Your task to perform on an android device: Open my contact list Image 0: 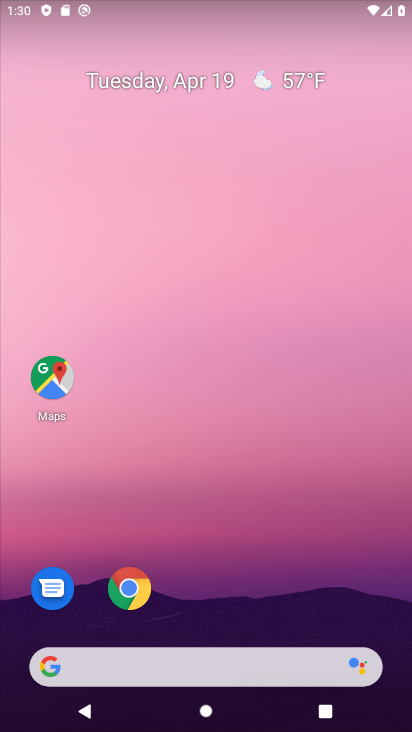
Step 0: drag from (294, 482) to (307, 74)
Your task to perform on an android device: Open my contact list Image 1: 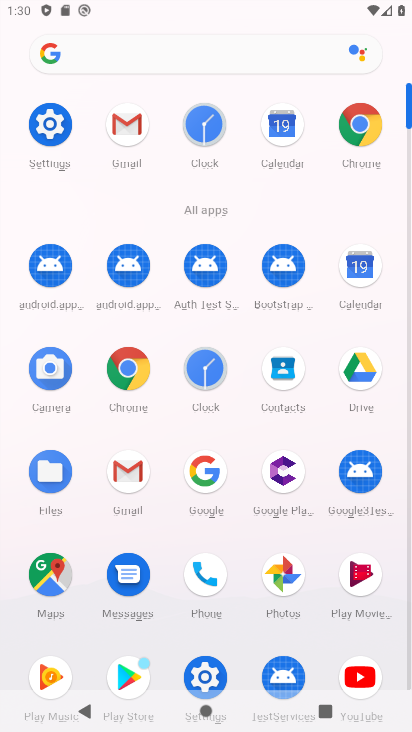
Step 1: click (286, 359)
Your task to perform on an android device: Open my contact list Image 2: 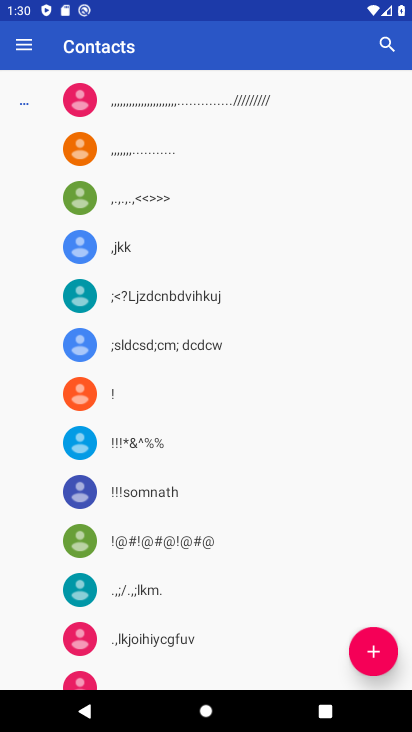
Step 2: task complete